Your task to perform on an android device: Go to battery settings Image 0: 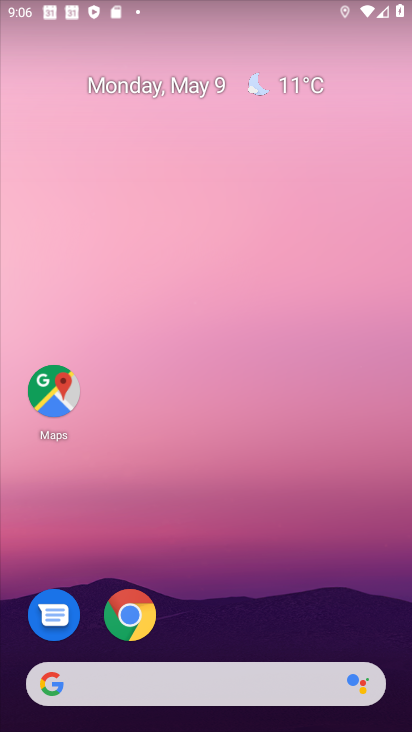
Step 0: drag from (238, 595) to (232, 49)
Your task to perform on an android device: Go to battery settings Image 1: 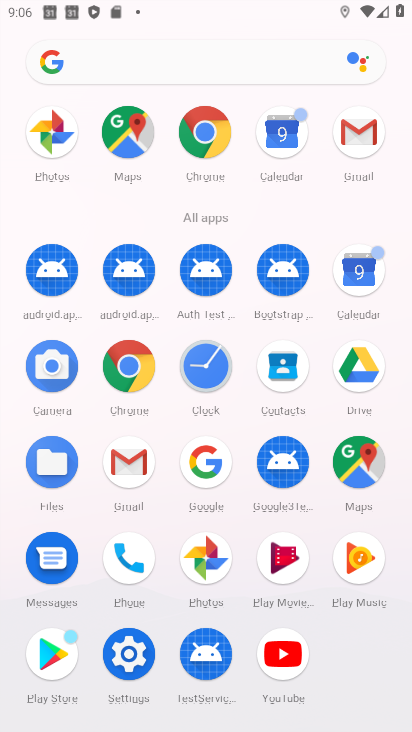
Step 1: click (125, 653)
Your task to perform on an android device: Go to battery settings Image 2: 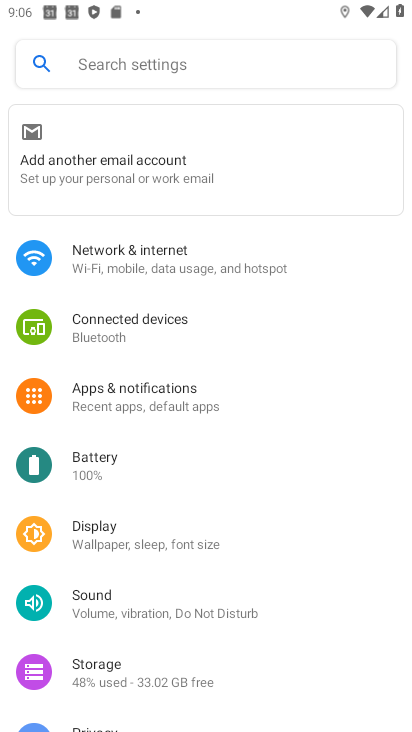
Step 2: click (110, 464)
Your task to perform on an android device: Go to battery settings Image 3: 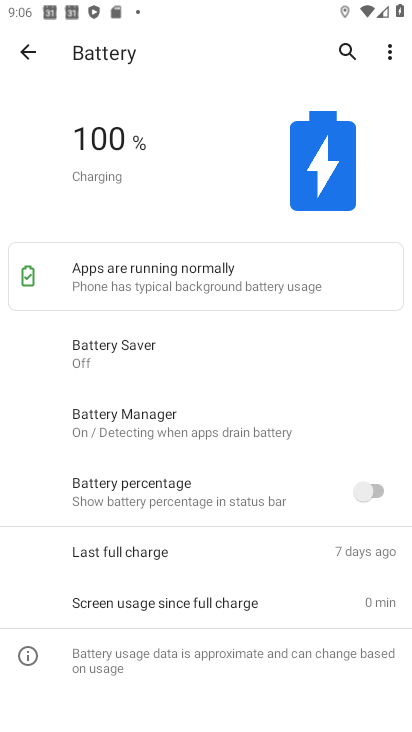
Step 3: task complete